Your task to perform on an android device: What's on my calendar today? Image 0: 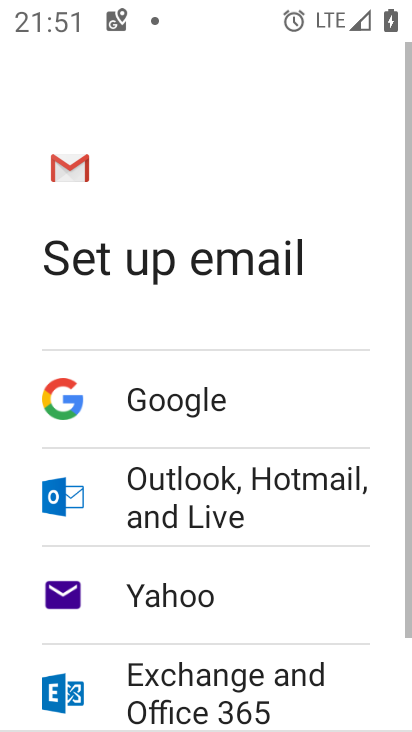
Step 0: press home button
Your task to perform on an android device: What's on my calendar today? Image 1: 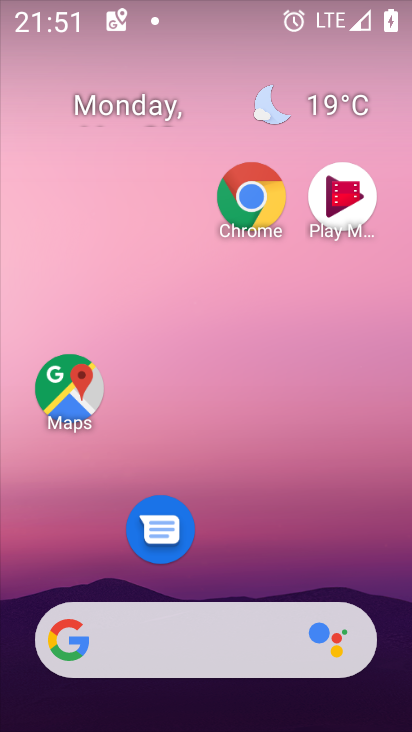
Step 1: drag from (229, 547) to (230, 44)
Your task to perform on an android device: What's on my calendar today? Image 2: 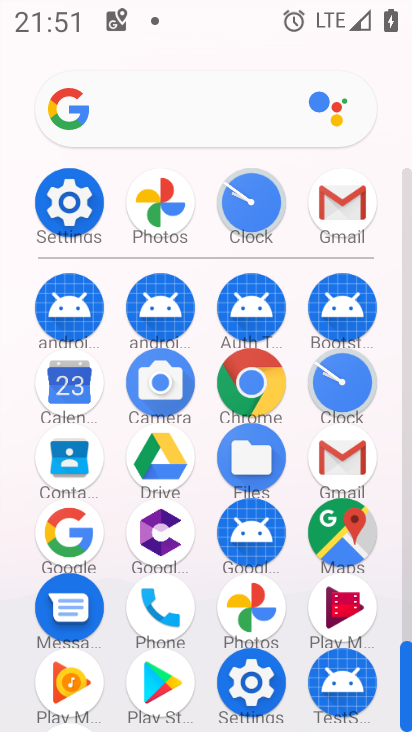
Step 2: click (57, 385)
Your task to perform on an android device: What's on my calendar today? Image 3: 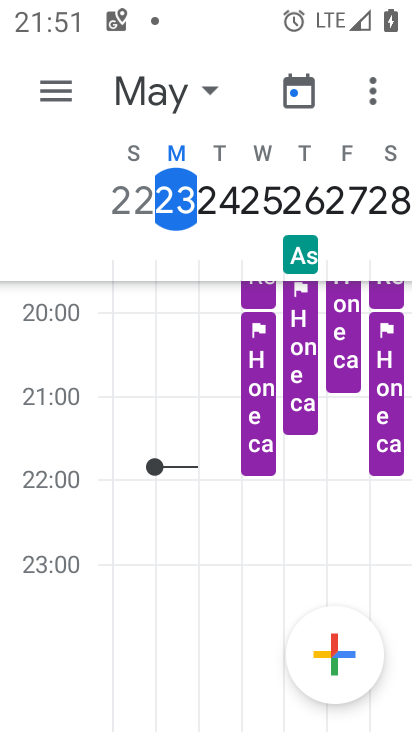
Step 3: click (140, 97)
Your task to perform on an android device: What's on my calendar today? Image 4: 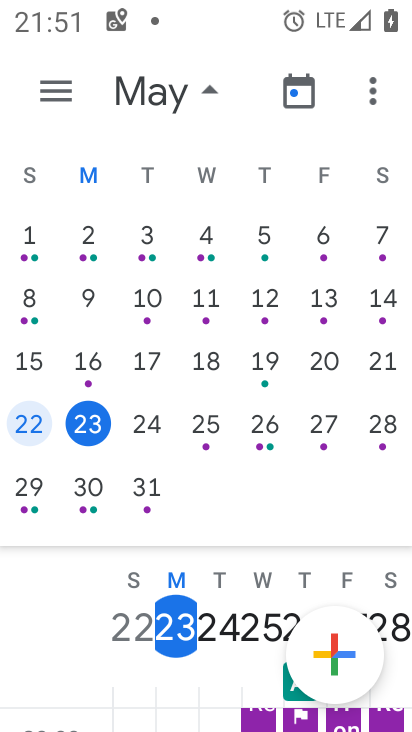
Step 4: click (44, 93)
Your task to perform on an android device: What's on my calendar today? Image 5: 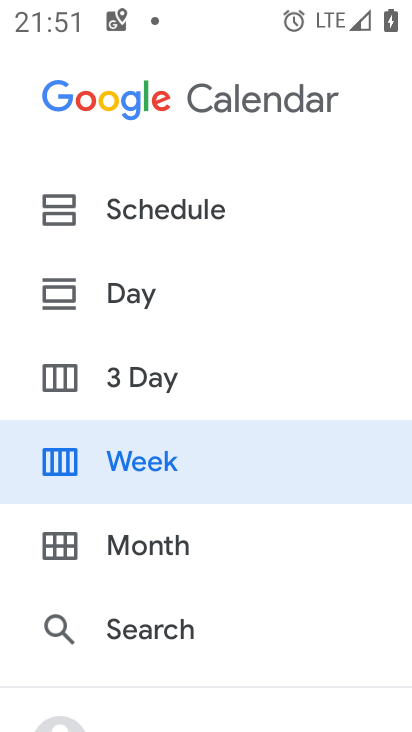
Step 5: click (146, 226)
Your task to perform on an android device: What's on my calendar today? Image 6: 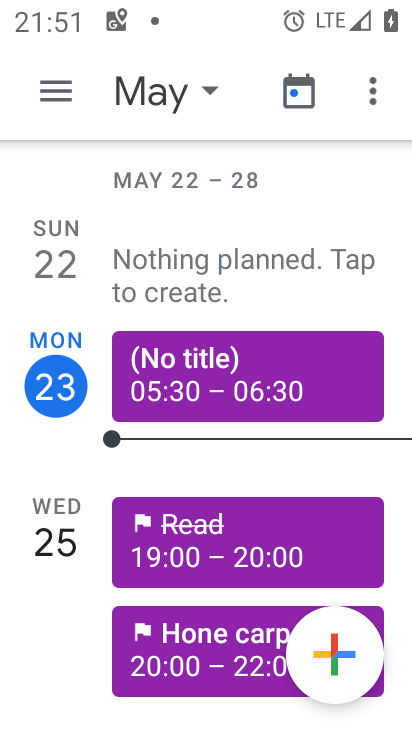
Step 6: click (190, 391)
Your task to perform on an android device: What's on my calendar today? Image 7: 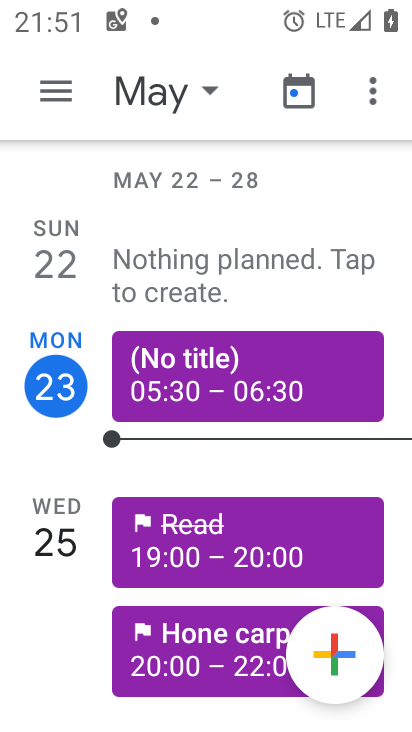
Step 7: click (209, 395)
Your task to perform on an android device: What's on my calendar today? Image 8: 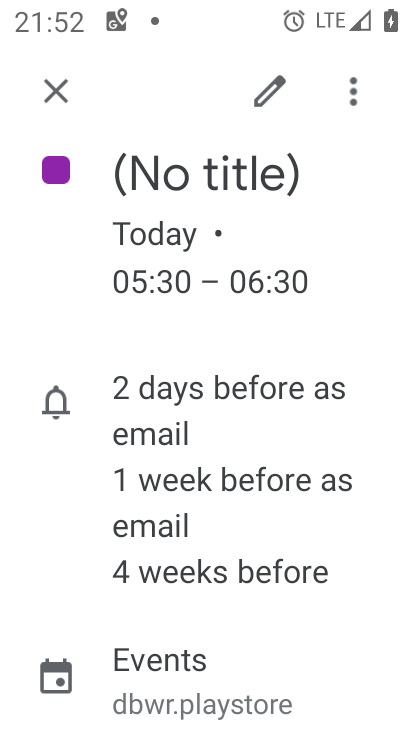
Step 8: click (46, 110)
Your task to perform on an android device: What's on my calendar today? Image 9: 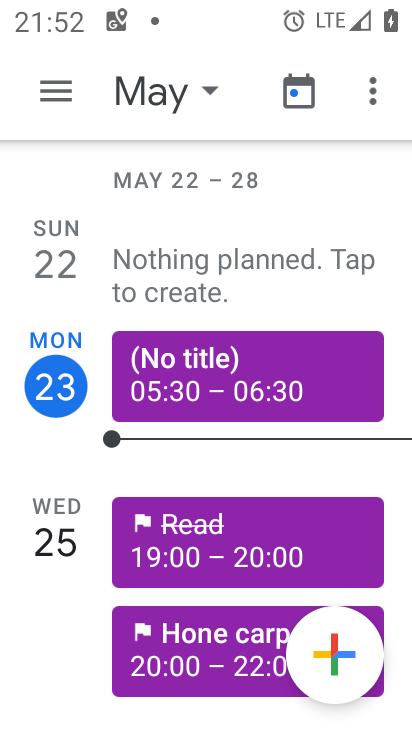
Step 9: task complete